Your task to perform on an android device: Open network settings Image 0: 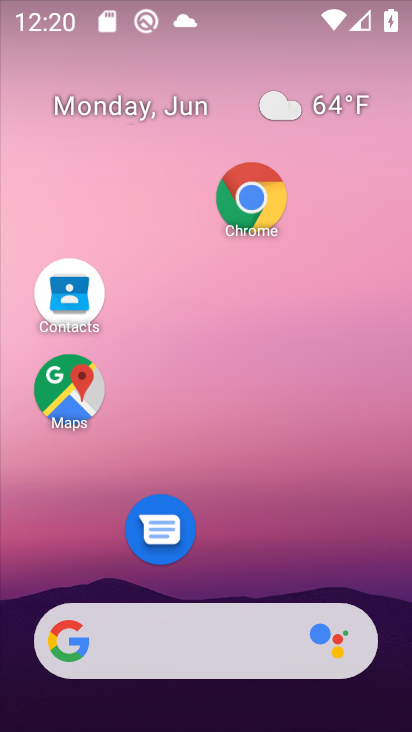
Step 0: drag from (299, 562) to (303, 1)
Your task to perform on an android device: Open network settings Image 1: 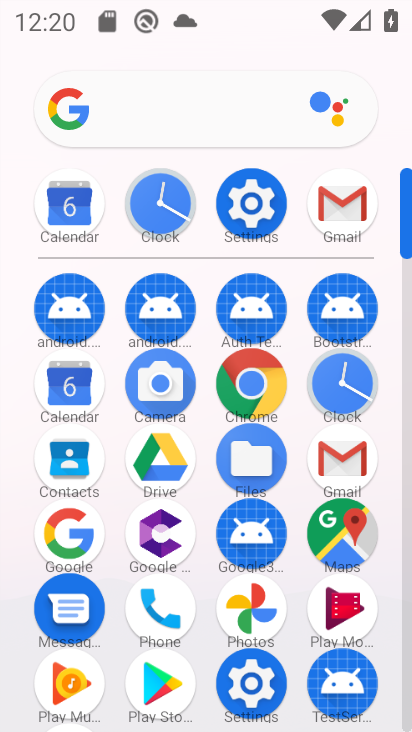
Step 1: click (264, 210)
Your task to perform on an android device: Open network settings Image 2: 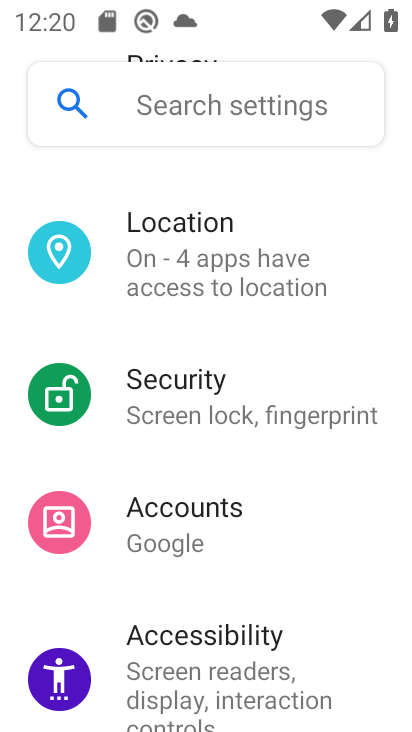
Step 2: drag from (215, 321) to (205, 730)
Your task to perform on an android device: Open network settings Image 3: 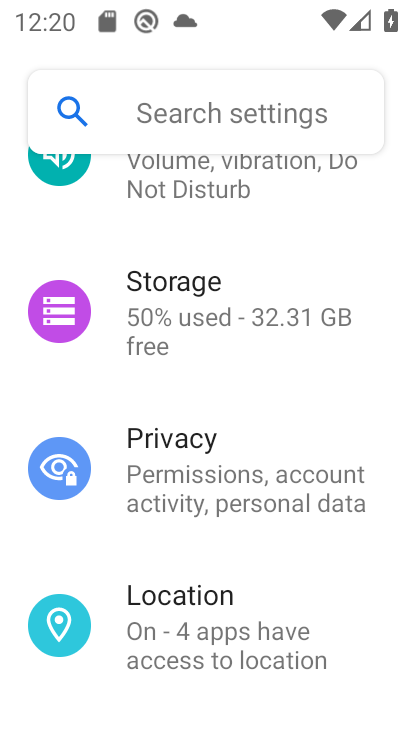
Step 3: drag from (208, 296) to (285, 729)
Your task to perform on an android device: Open network settings Image 4: 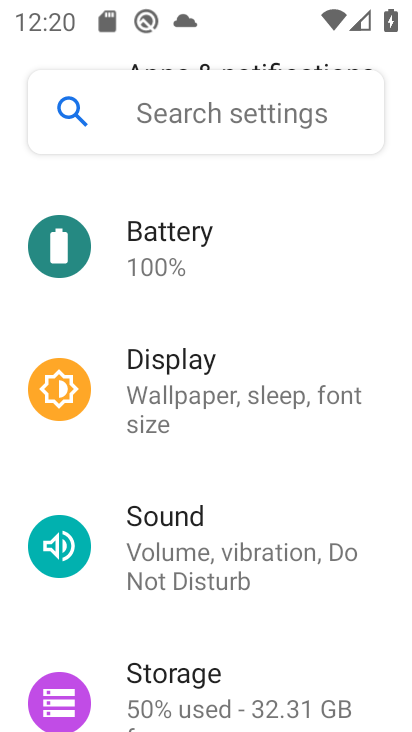
Step 4: drag from (175, 286) to (266, 647)
Your task to perform on an android device: Open network settings Image 5: 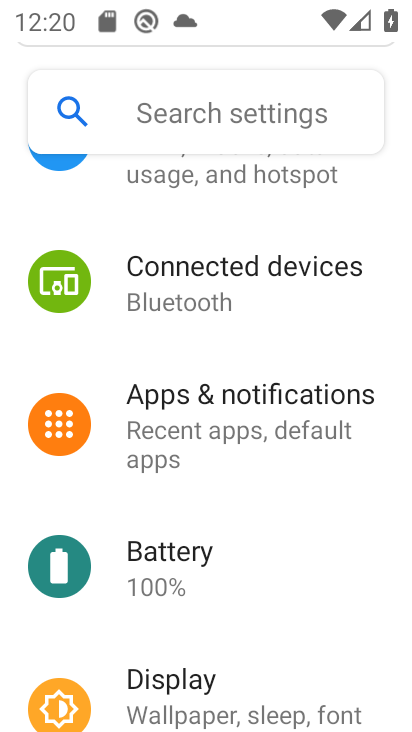
Step 5: drag from (235, 259) to (340, 658)
Your task to perform on an android device: Open network settings Image 6: 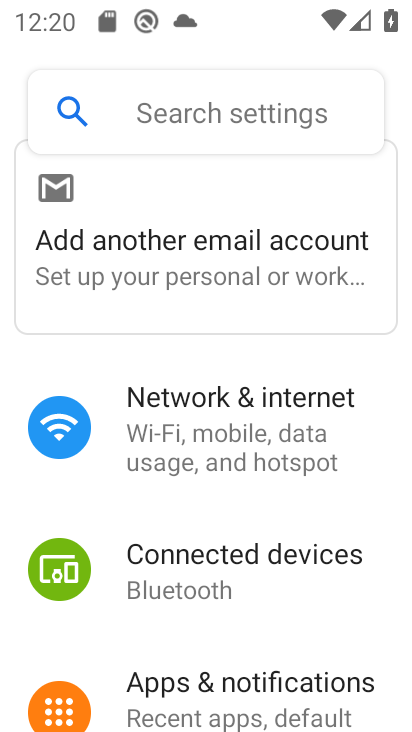
Step 6: click (261, 417)
Your task to perform on an android device: Open network settings Image 7: 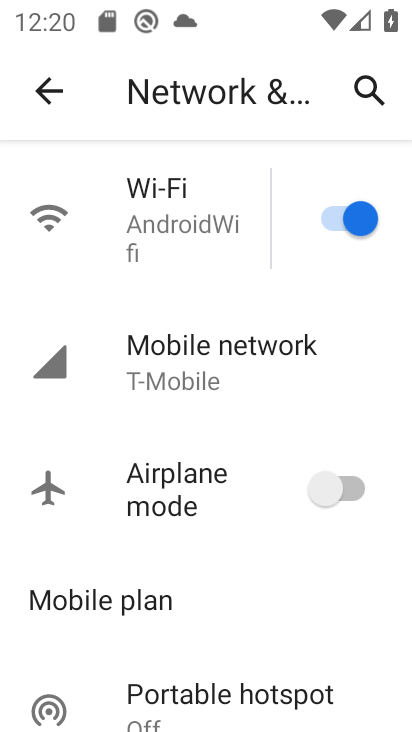
Step 7: click (181, 368)
Your task to perform on an android device: Open network settings Image 8: 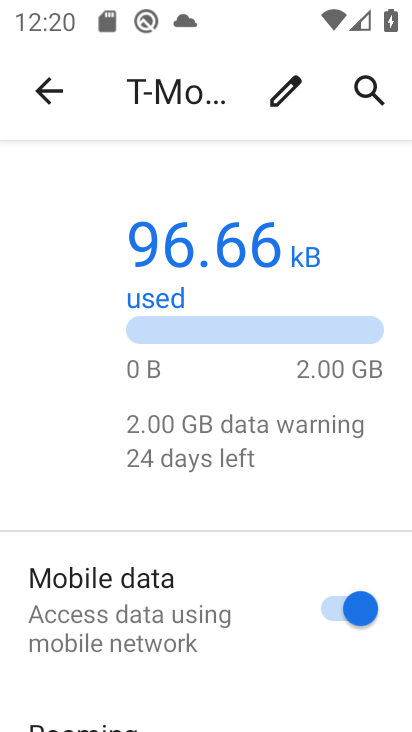
Step 8: task complete